Your task to perform on an android device: empty trash in the gmail app Image 0: 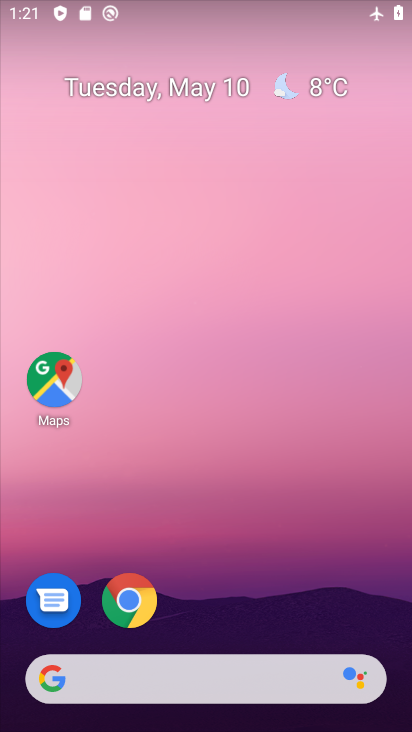
Step 0: drag from (221, 638) to (250, 110)
Your task to perform on an android device: empty trash in the gmail app Image 1: 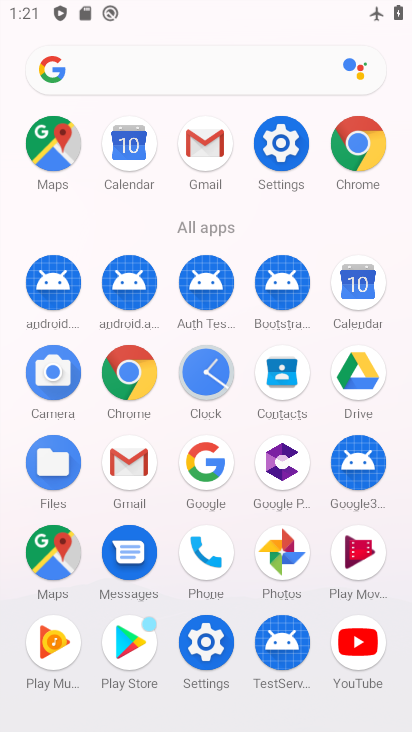
Step 1: click (127, 463)
Your task to perform on an android device: empty trash in the gmail app Image 2: 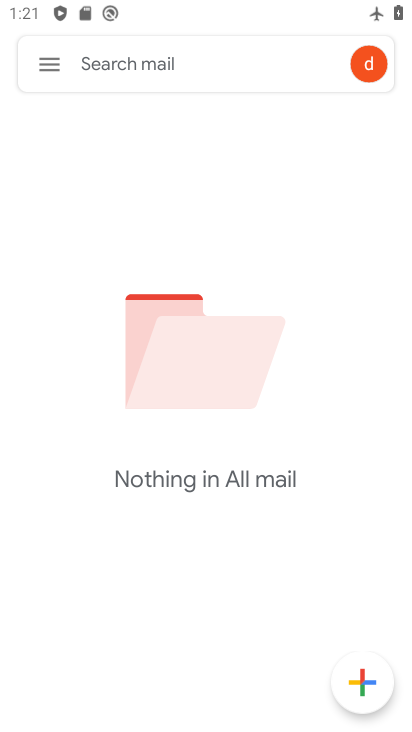
Step 2: click (53, 64)
Your task to perform on an android device: empty trash in the gmail app Image 3: 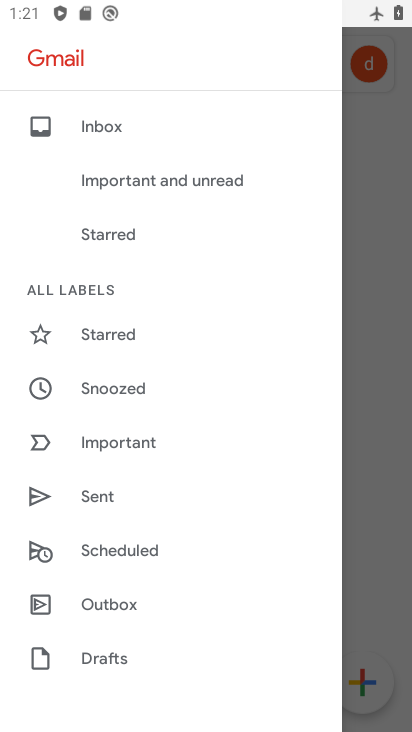
Step 3: drag from (154, 618) to (160, 129)
Your task to perform on an android device: empty trash in the gmail app Image 4: 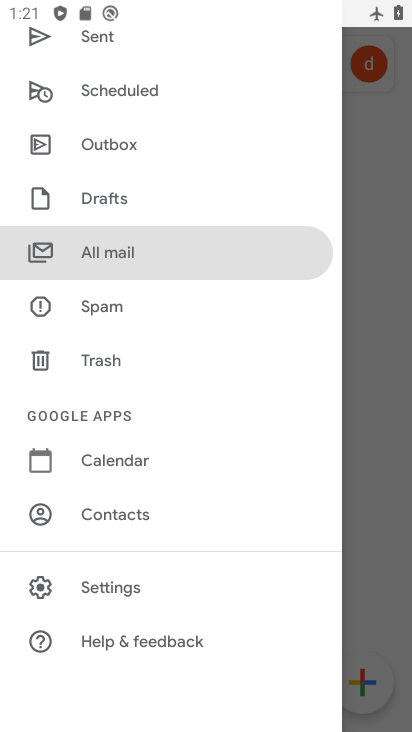
Step 4: click (128, 357)
Your task to perform on an android device: empty trash in the gmail app Image 5: 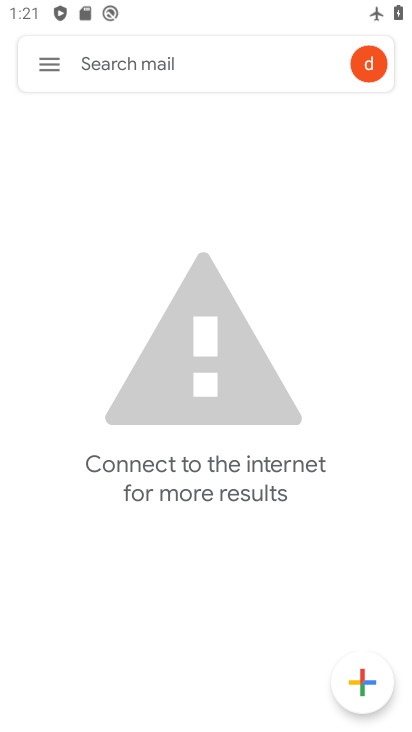
Step 5: task complete